Your task to perform on an android device: Open Amazon Image 0: 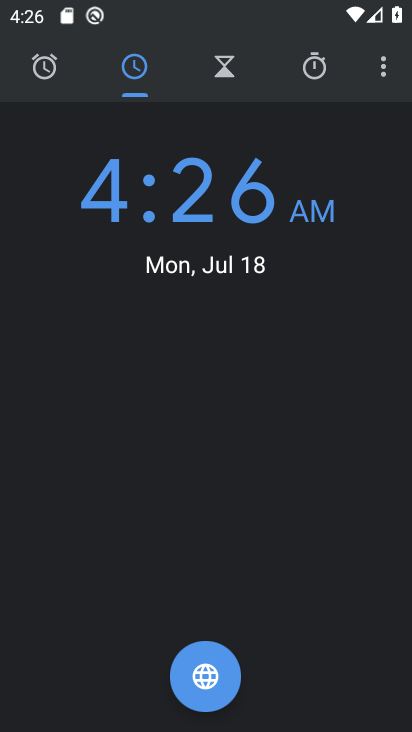
Step 0: press home button
Your task to perform on an android device: Open Amazon Image 1: 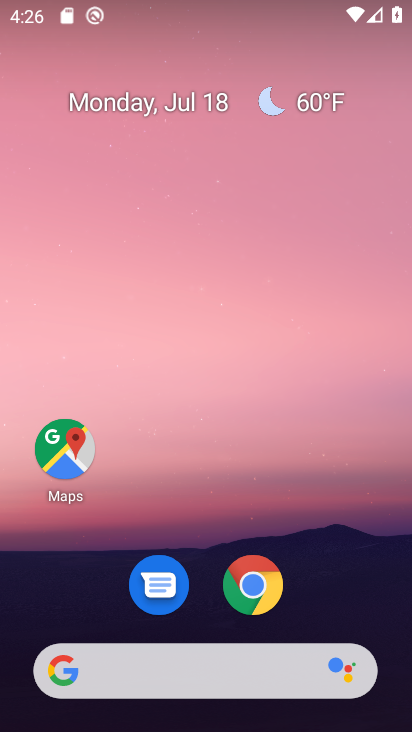
Step 1: click (245, 590)
Your task to perform on an android device: Open Amazon Image 2: 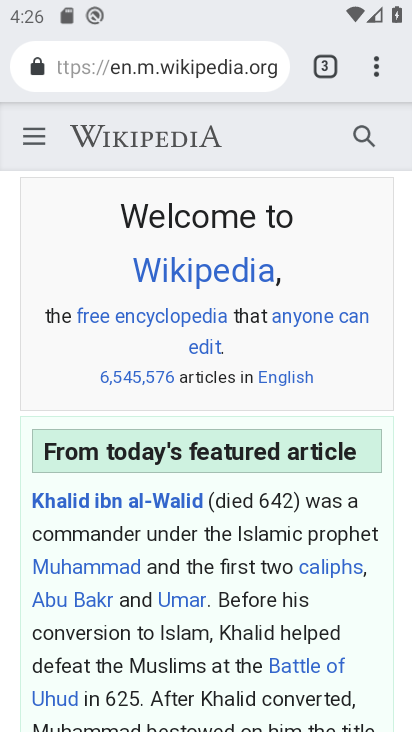
Step 2: click (375, 73)
Your task to perform on an android device: Open Amazon Image 3: 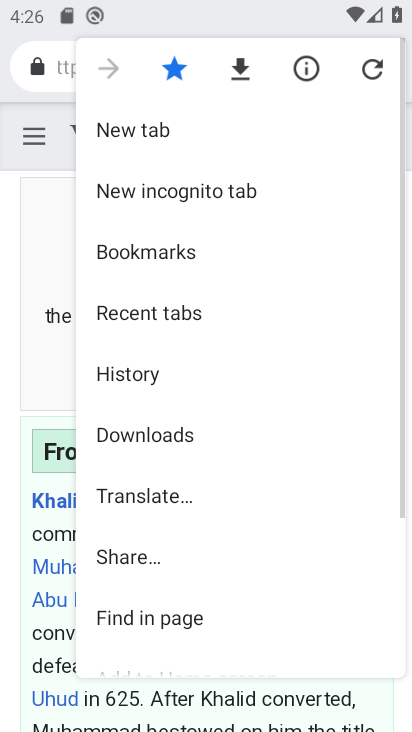
Step 3: click (282, 134)
Your task to perform on an android device: Open Amazon Image 4: 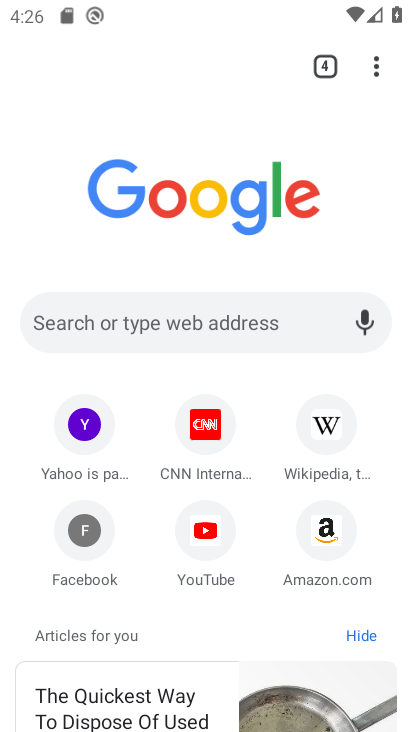
Step 4: click (317, 528)
Your task to perform on an android device: Open Amazon Image 5: 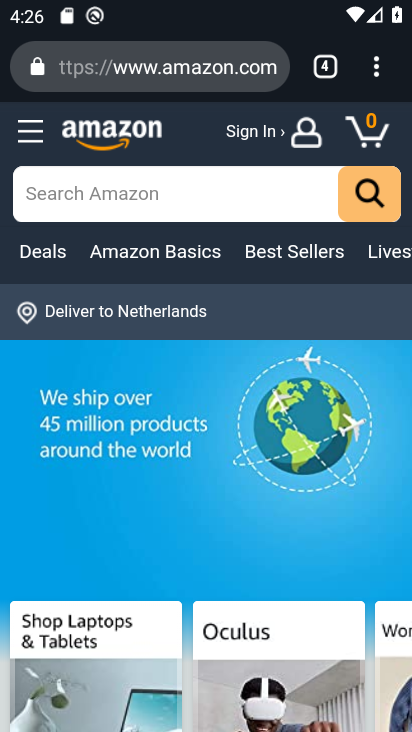
Step 5: task complete